Your task to perform on an android device: Go to sound settings Image 0: 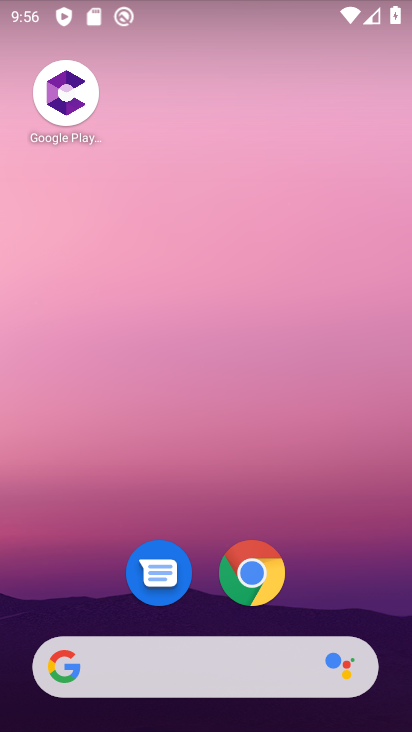
Step 0: drag from (314, 573) to (309, 121)
Your task to perform on an android device: Go to sound settings Image 1: 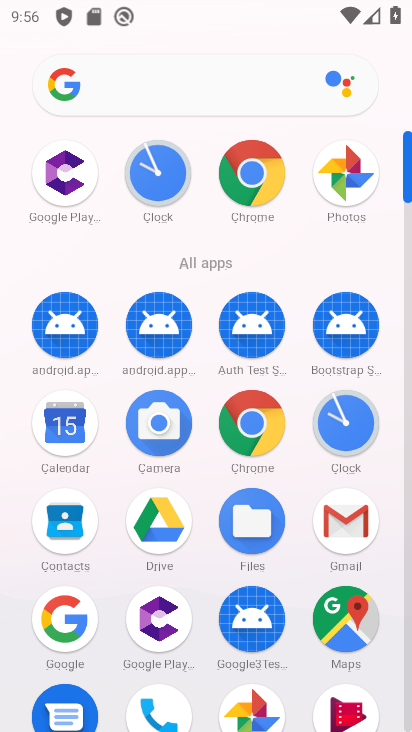
Step 1: drag from (192, 654) to (243, 212)
Your task to perform on an android device: Go to sound settings Image 2: 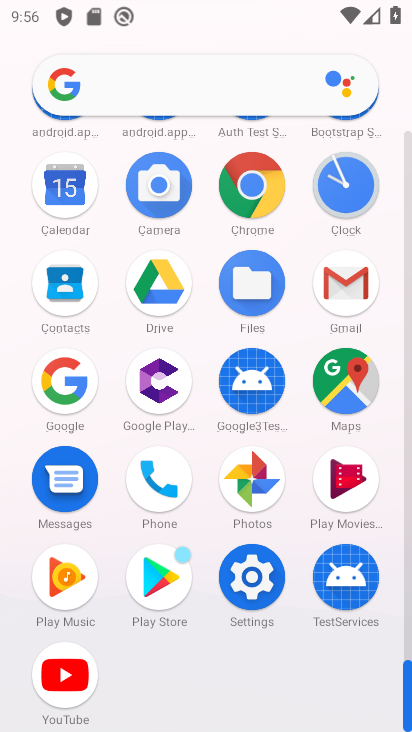
Step 2: click (264, 582)
Your task to perform on an android device: Go to sound settings Image 3: 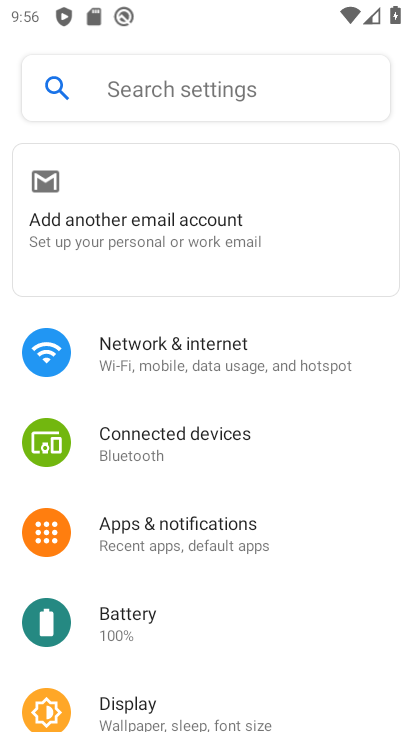
Step 3: drag from (159, 712) to (187, 285)
Your task to perform on an android device: Go to sound settings Image 4: 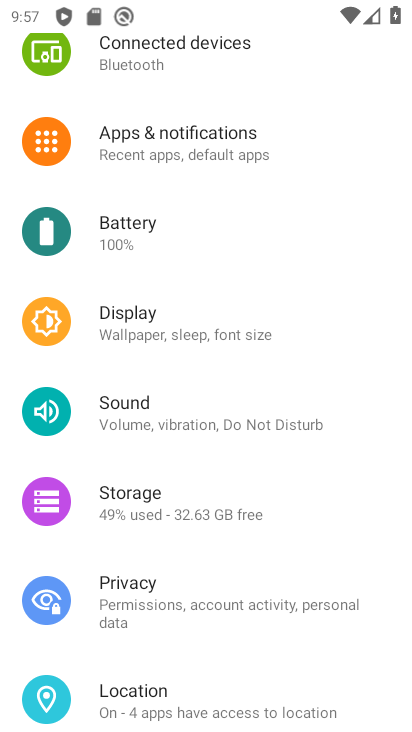
Step 4: click (107, 449)
Your task to perform on an android device: Go to sound settings Image 5: 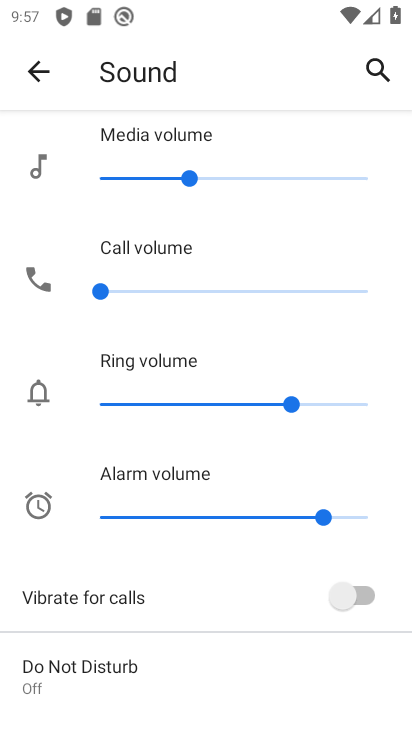
Step 5: task complete